Your task to perform on an android device: open a new tab in the chrome app Image 0: 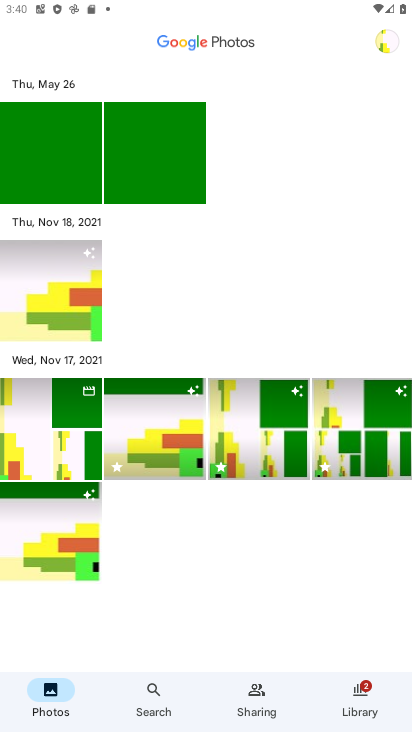
Step 0: press home button
Your task to perform on an android device: open a new tab in the chrome app Image 1: 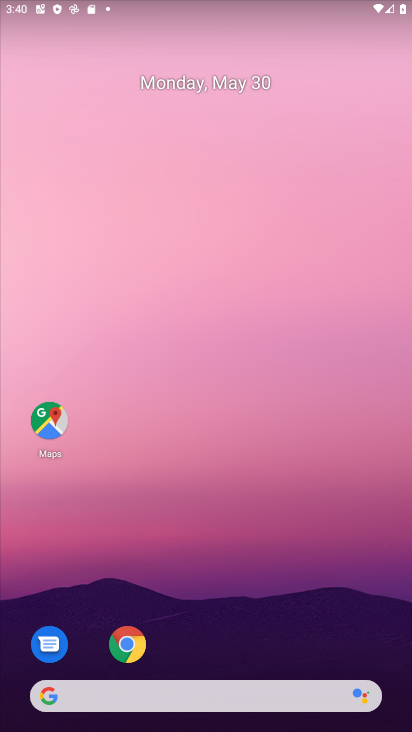
Step 1: drag from (242, 630) to (279, 73)
Your task to perform on an android device: open a new tab in the chrome app Image 2: 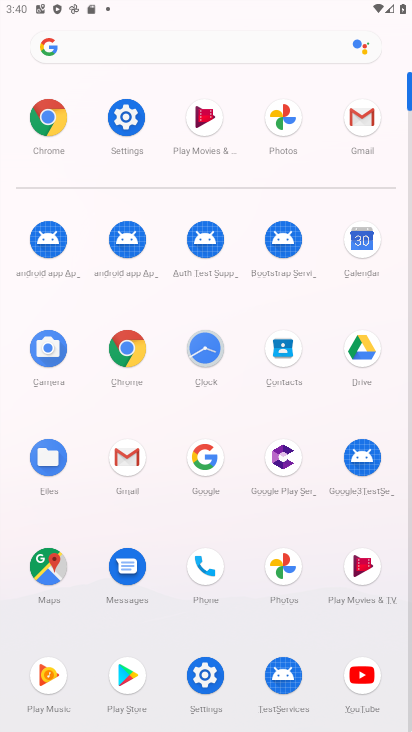
Step 2: click (47, 126)
Your task to perform on an android device: open a new tab in the chrome app Image 3: 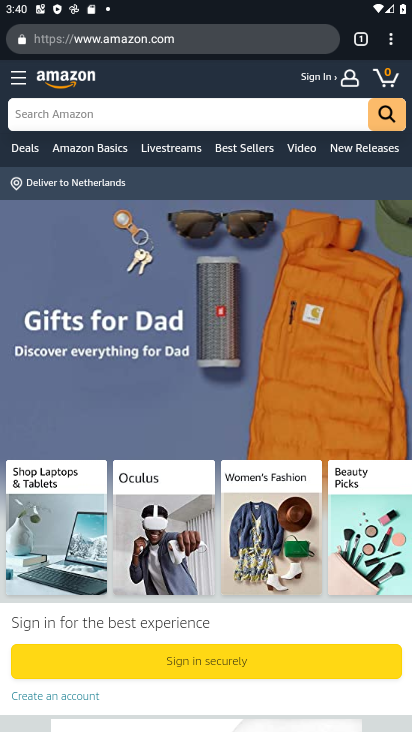
Step 3: click (359, 42)
Your task to perform on an android device: open a new tab in the chrome app Image 4: 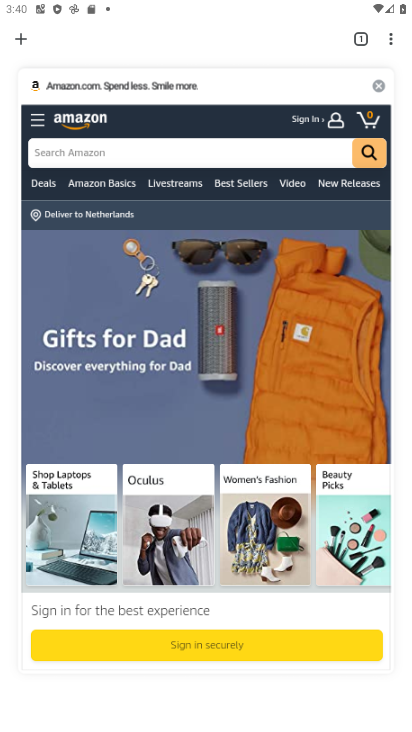
Step 4: click (23, 47)
Your task to perform on an android device: open a new tab in the chrome app Image 5: 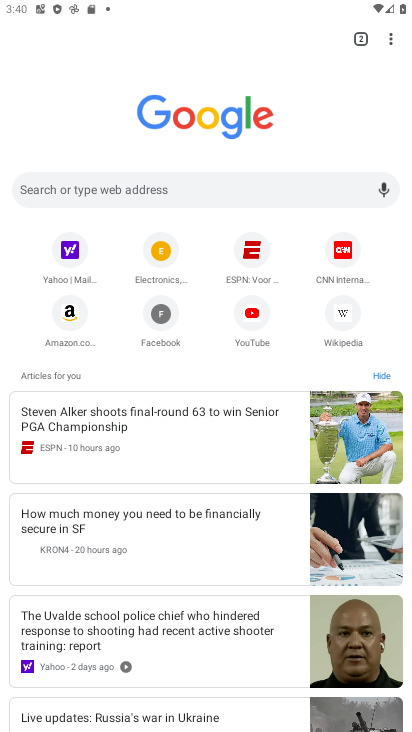
Step 5: task complete